Your task to perform on an android device: Open Wikipedia Image 0: 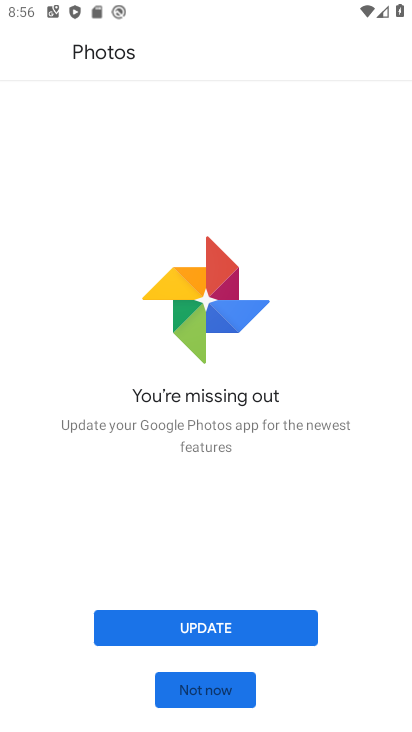
Step 0: press home button
Your task to perform on an android device: Open Wikipedia Image 1: 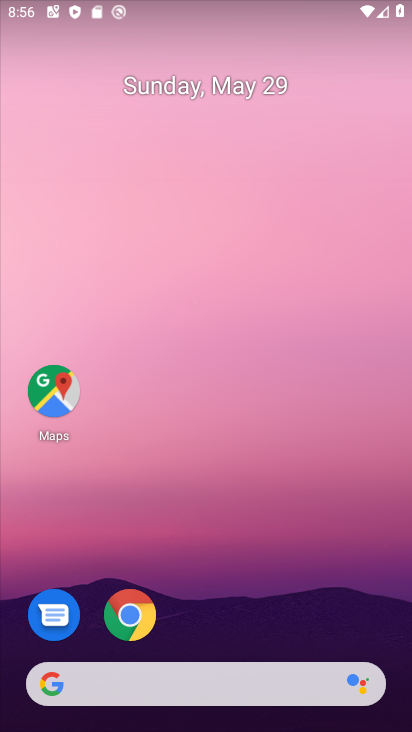
Step 1: click (126, 627)
Your task to perform on an android device: Open Wikipedia Image 2: 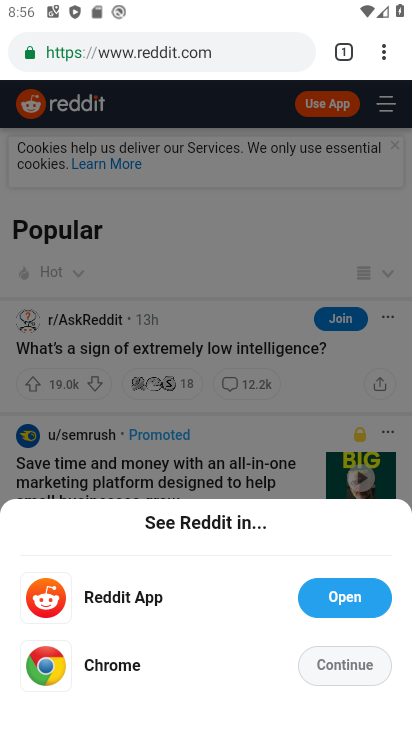
Step 2: click (143, 47)
Your task to perform on an android device: Open Wikipedia Image 3: 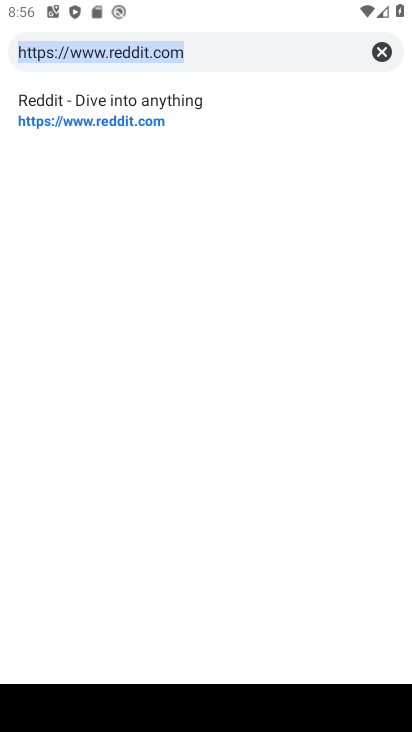
Step 3: type "wikipedia"
Your task to perform on an android device: Open Wikipedia Image 4: 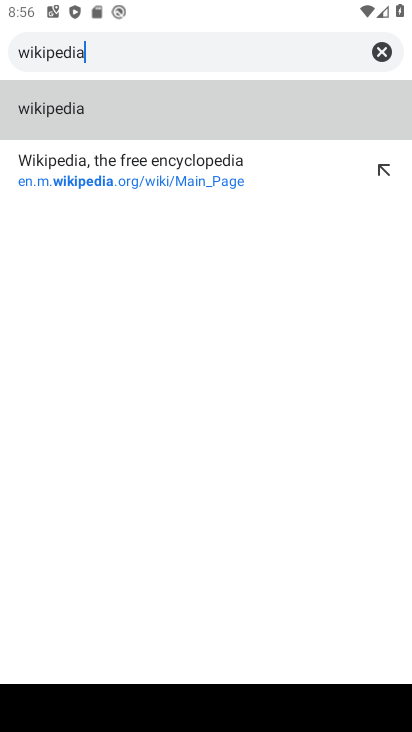
Step 4: click (56, 113)
Your task to perform on an android device: Open Wikipedia Image 5: 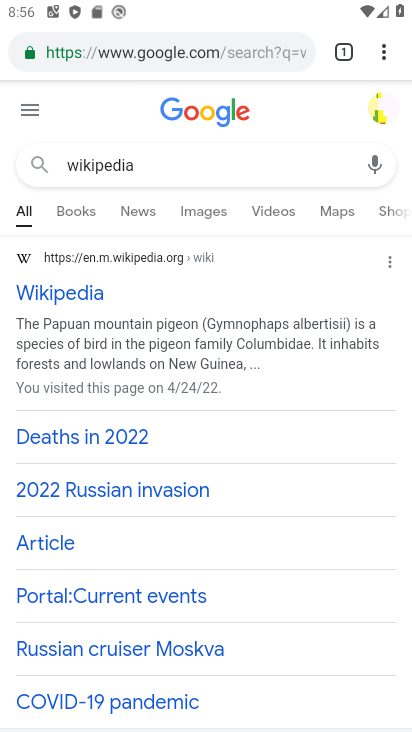
Step 5: click (24, 295)
Your task to perform on an android device: Open Wikipedia Image 6: 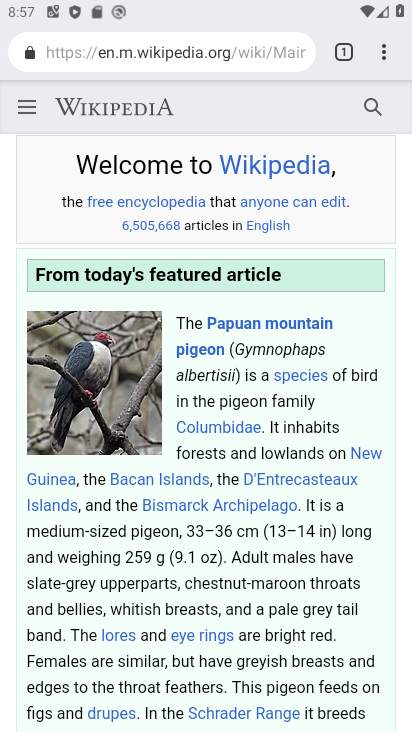
Step 6: task complete